Your task to perform on an android device: change your default location settings in chrome Image 0: 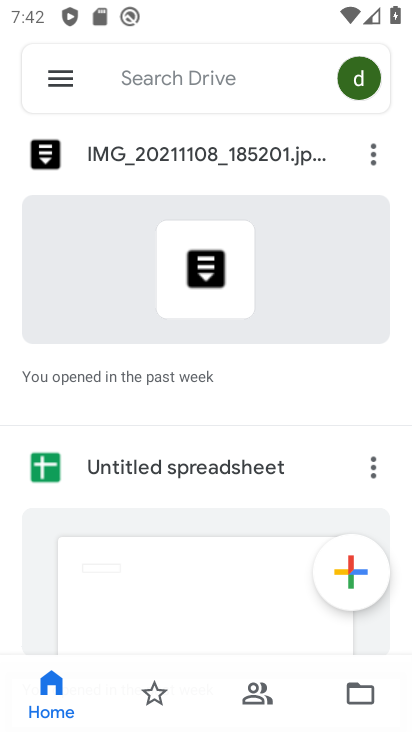
Step 0: press home button
Your task to perform on an android device: change your default location settings in chrome Image 1: 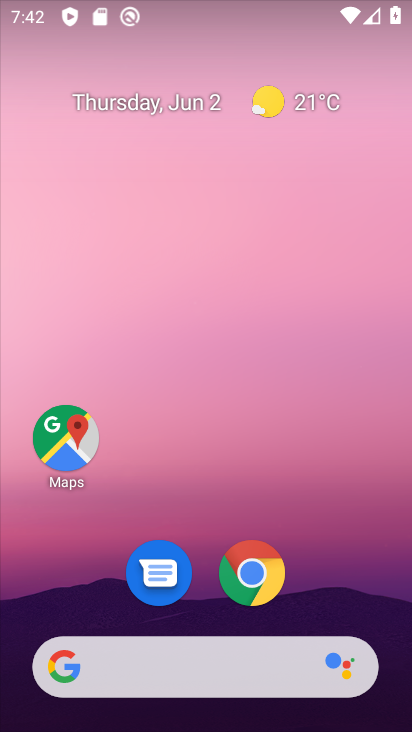
Step 1: click (262, 574)
Your task to perform on an android device: change your default location settings in chrome Image 2: 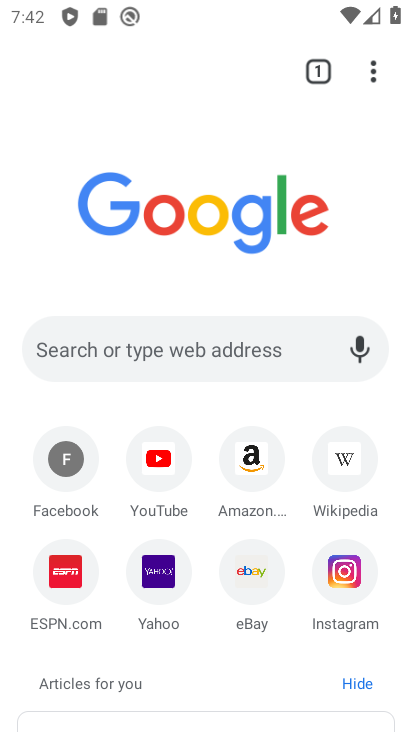
Step 2: click (366, 67)
Your task to perform on an android device: change your default location settings in chrome Image 3: 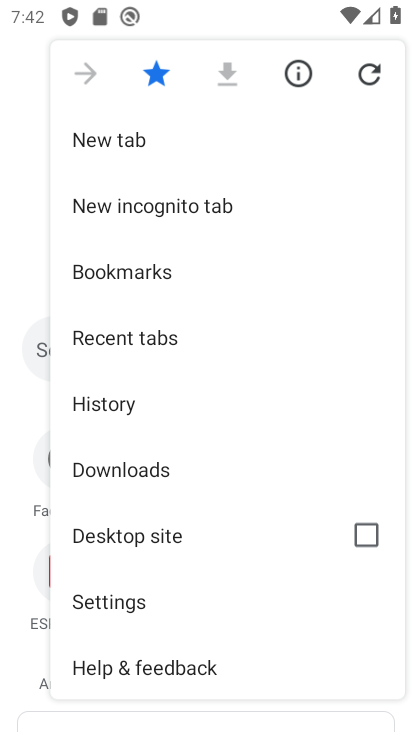
Step 3: click (137, 597)
Your task to perform on an android device: change your default location settings in chrome Image 4: 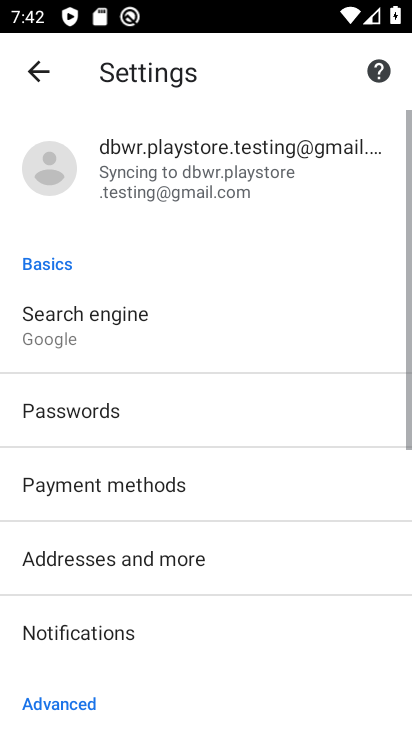
Step 4: drag from (160, 602) to (191, 116)
Your task to perform on an android device: change your default location settings in chrome Image 5: 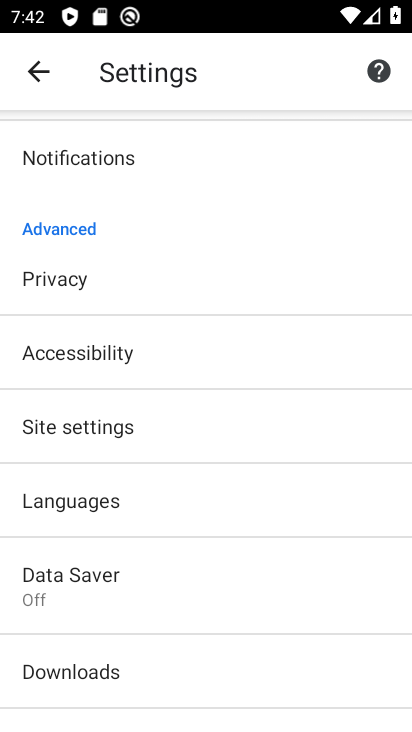
Step 5: click (71, 429)
Your task to perform on an android device: change your default location settings in chrome Image 6: 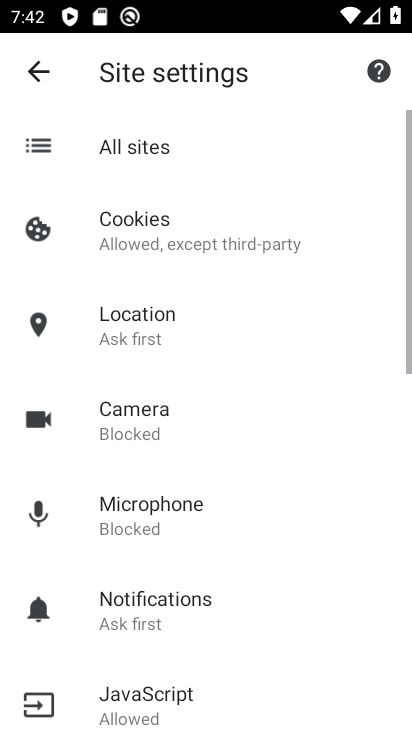
Step 6: click (156, 338)
Your task to perform on an android device: change your default location settings in chrome Image 7: 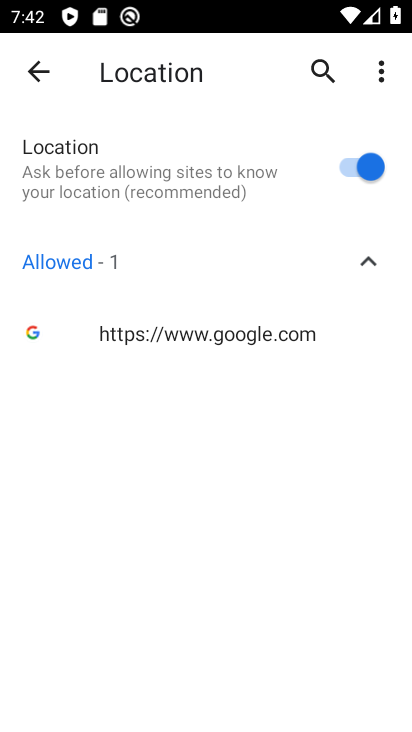
Step 7: click (375, 157)
Your task to perform on an android device: change your default location settings in chrome Image 8: 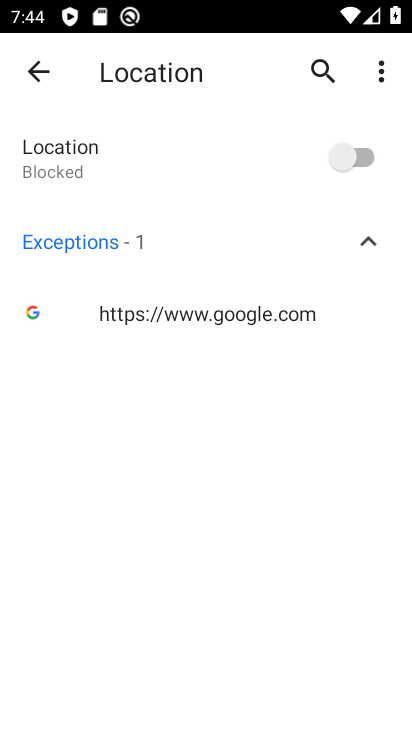
Step 8: task complete